Your task to perform on an android device: set an alarm Image 0: 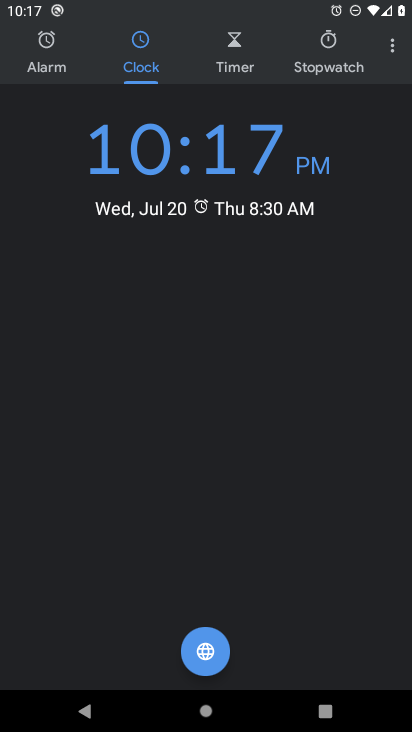
Step 0: click (38, 42)
Your task to perform on an android device: set an alarm Image 1: 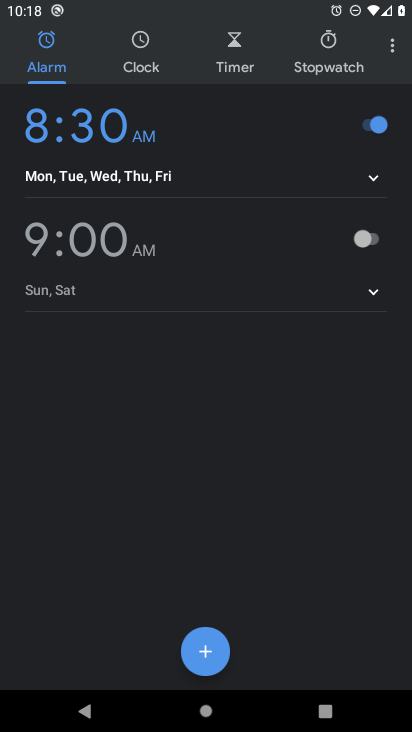
Step 1: task complete